Your task to perform on an android device: Go to CNN.com Image 0: 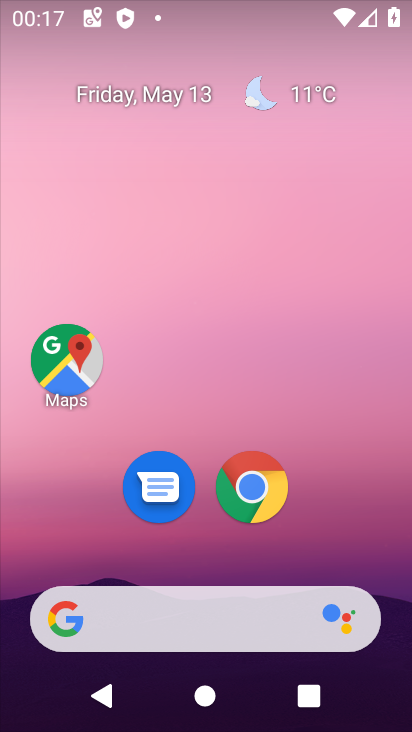
Step 0: click (235, 653)
Your task to perform on an android device: Go to CNN.com Image 1: 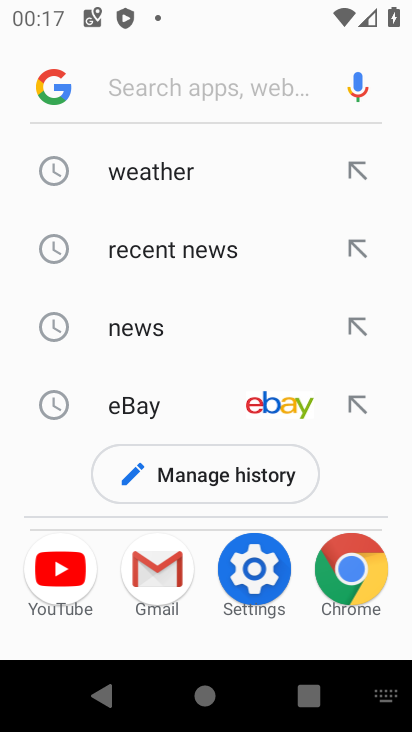
Step 1: type "cnn.com"
Your task to perform on an android device: Go to CNN.com Image 2: 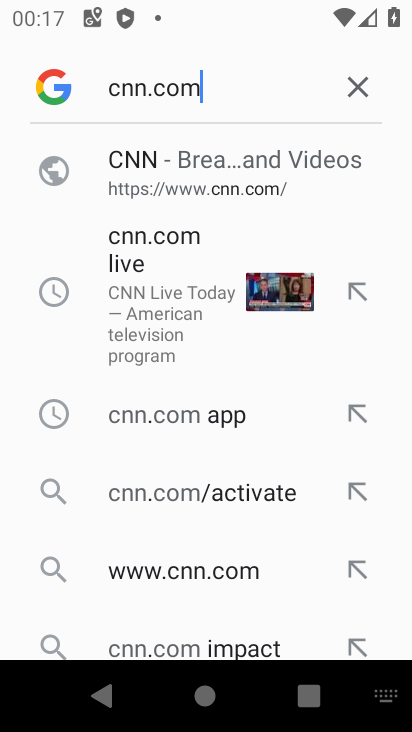
Step 2: click (304, 152)
Your task to perform on an android device: Go to CNN.com Image 3: 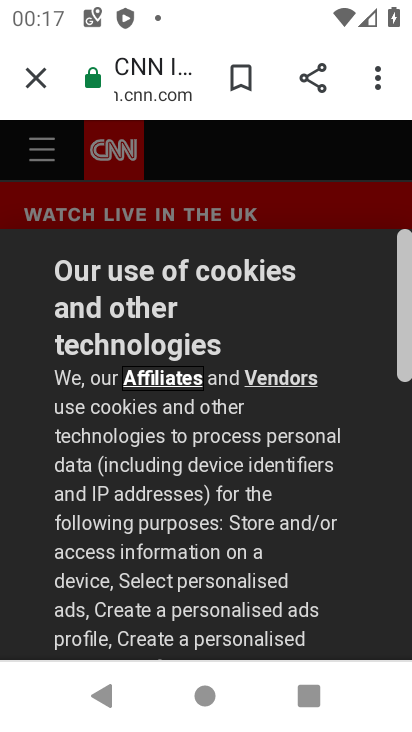
Step 3: task complete